Your task to perform on an android device: Go to display settings Image 0: 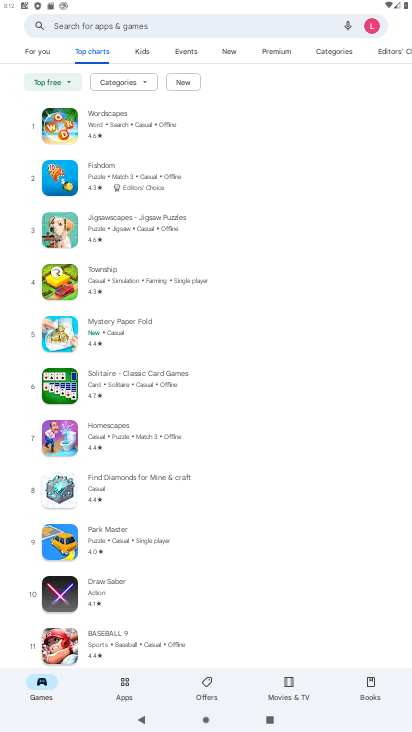
Step 0: press home button
Your task to perform on an android device: Go to display settings Image 1: 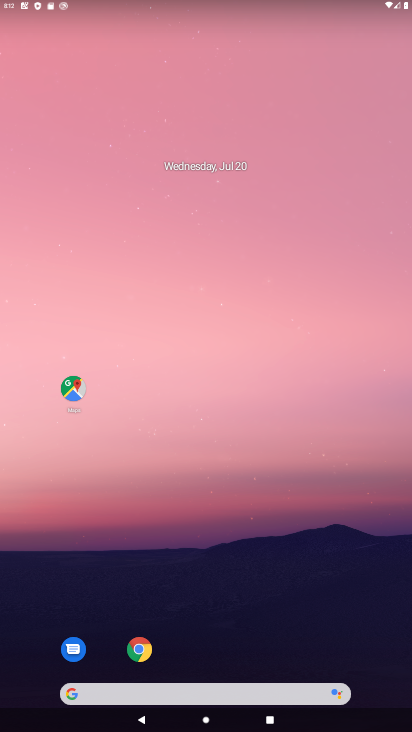
Step 1: drag from (250, 652) to (179, 53)
Your task to perform on an android device: Go to display settings Image 2: 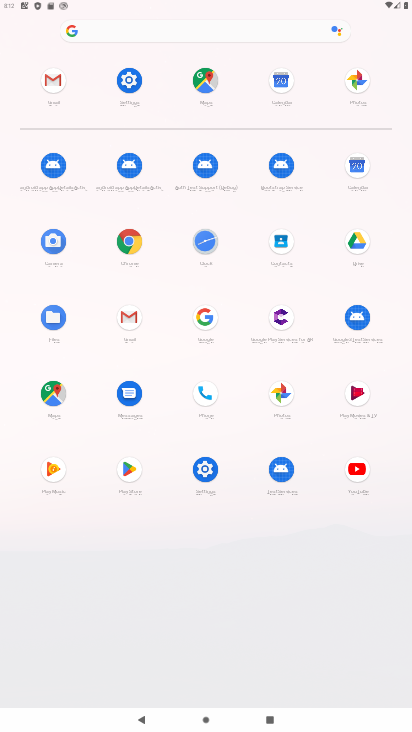
Step 2: click (114, 86)
Your task to perform on an android device: Go to display settings Image 3: 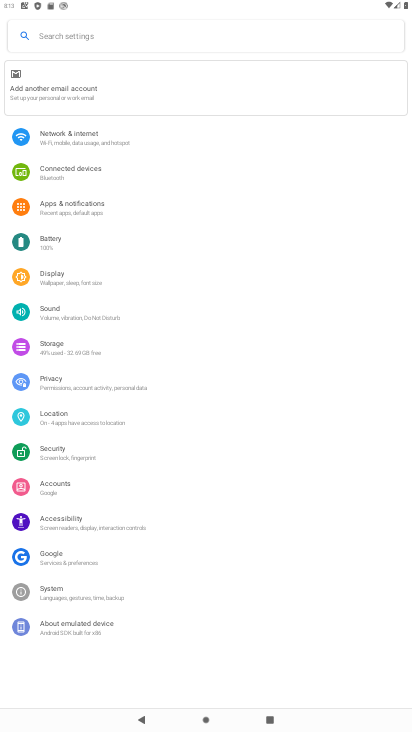
Step 3: click (89, 277)
Your task to perform on an android device: Go to display settings Image 4: 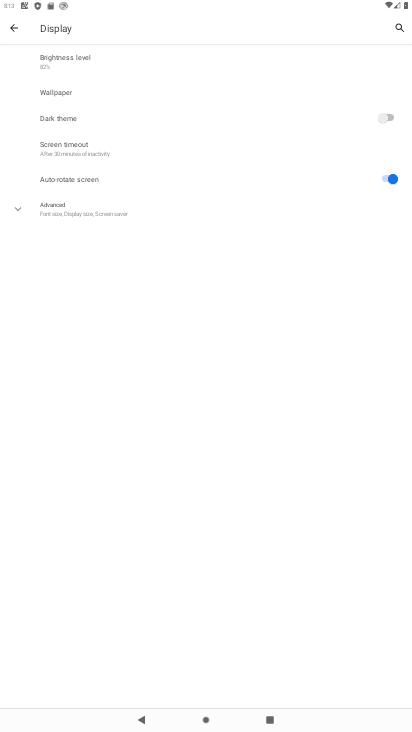
Step 4: task complete